Your task to perform on an android device: turn notification dots on Image 0: 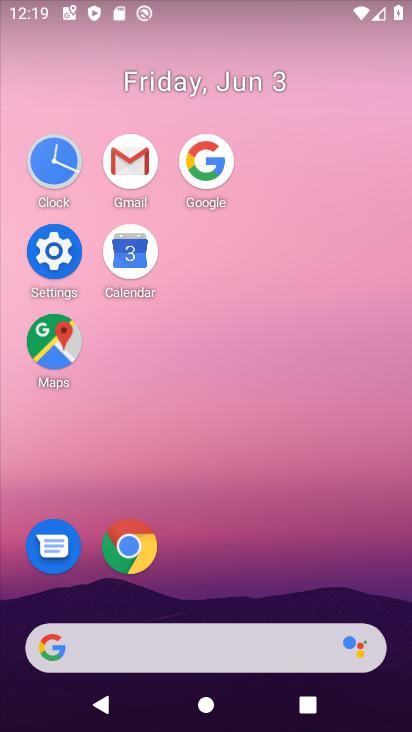
Step 0: click (68, 249)
Your task to perform on an android device: turn notification dots on Image 1: 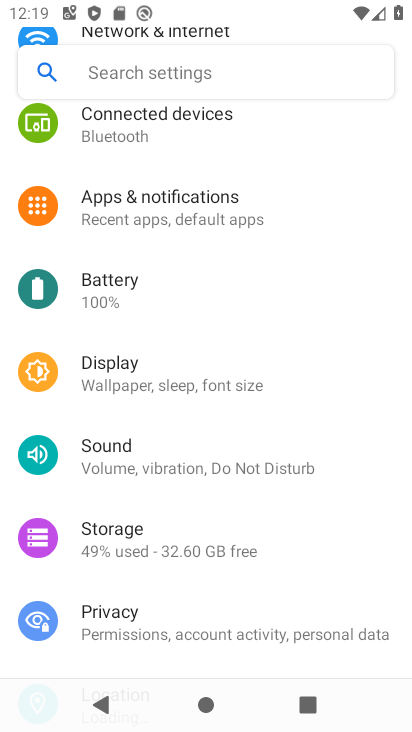
Step 1: click (222, 219)
Your task to perform on an android device: turn notification dots on Image 2: 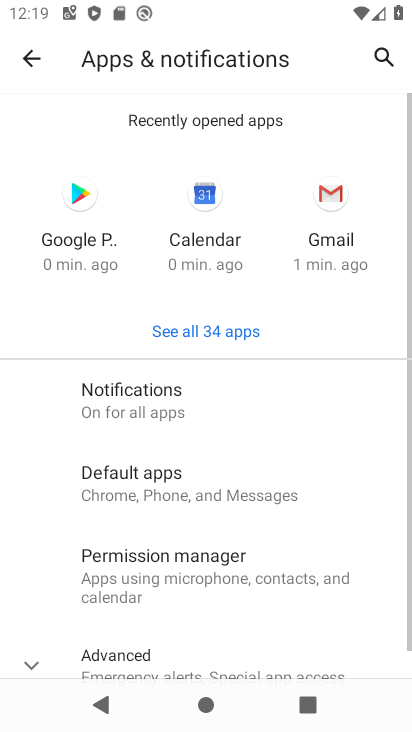
Step 2: click (190, 396)
Your task to perform on an android device: turn notification dots on Image 3: 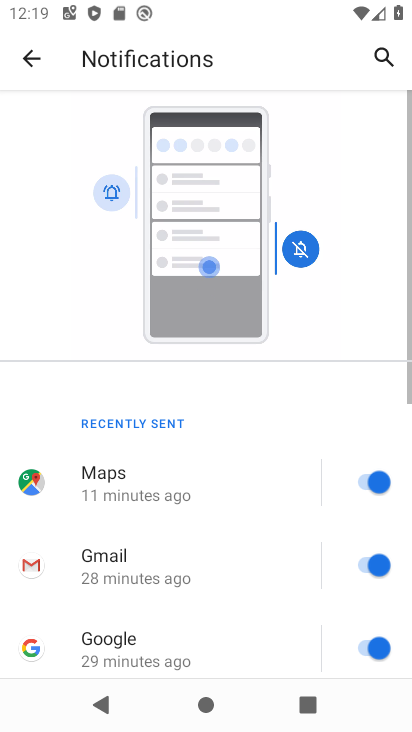
Step 3: drag from (230, 573) to (272, 119)
Your task to perform on an android device: turn notification dots on Image 4: 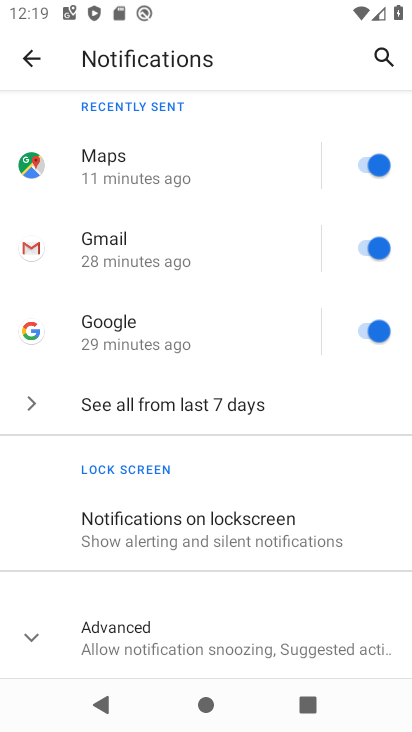
Step 4: click (257, 601)
Your task to perform on an android device: turn notification dots on Image 5: 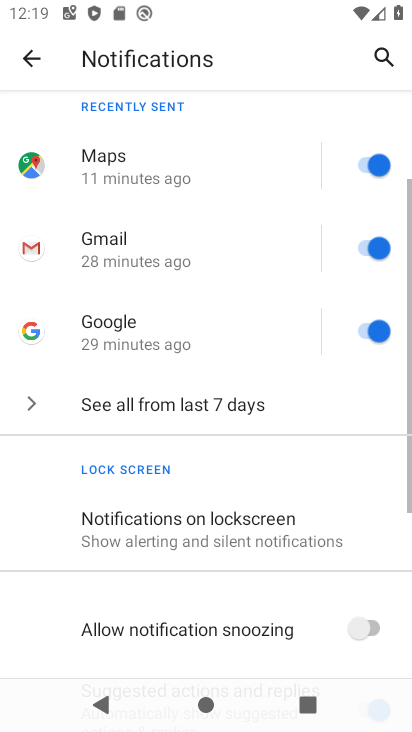
Step 5: task complete